Your task to perform on an android device: Open battery settings Image 0: 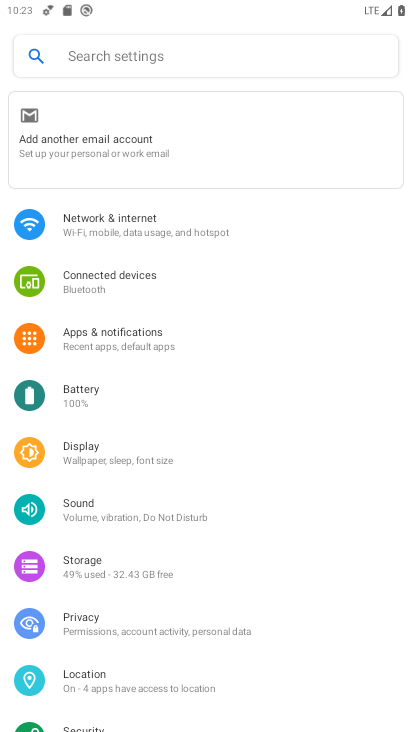
Step 0: press home button
Your task to perform on an android device: Open battery settings Image 1: 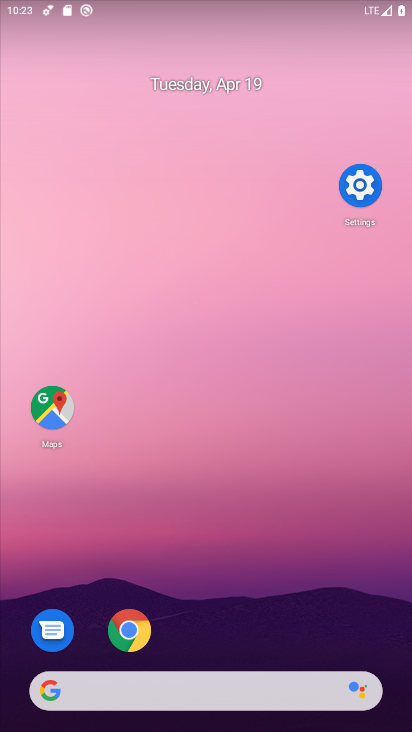
Step 1: drag from (219, 664) to (410, 111)
Your task to perform on an android device: Open battery settings Image 2: 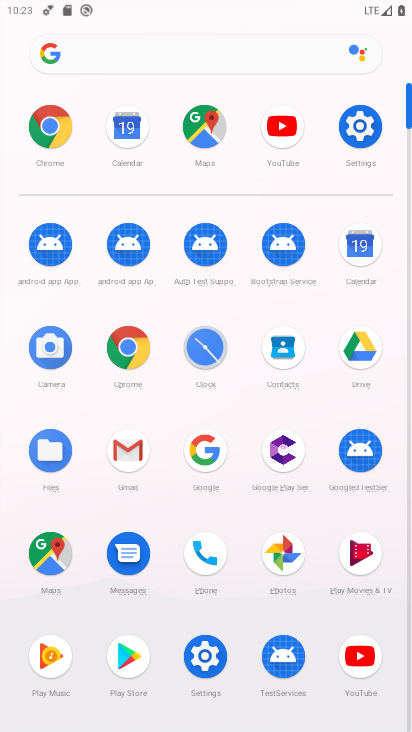
Step 2: click (371, 161)
Your task to perform on an android device: Open battery settings Image 3: 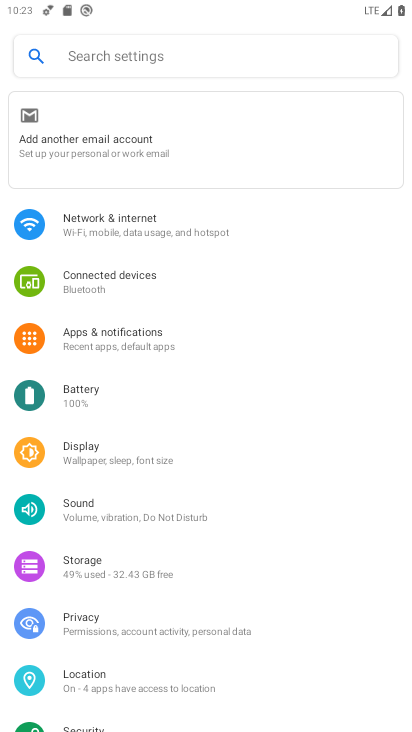
Step 3: click (150, 387)
Your task to perform on an android device: Open battery settings Image 4: 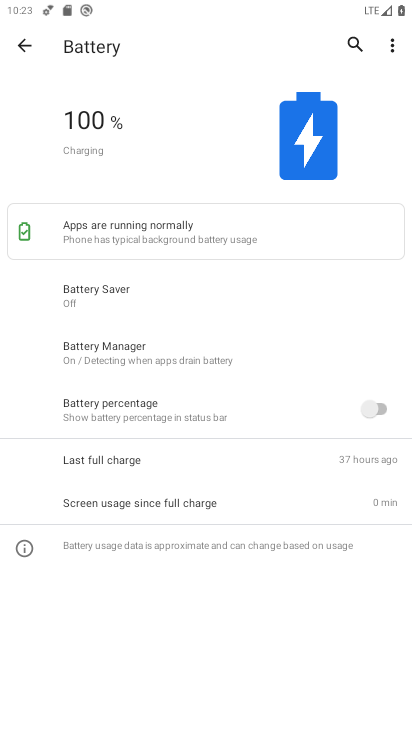
Step 4: task complete